Your task to perform on an android device: Go to internet settings Image 0: 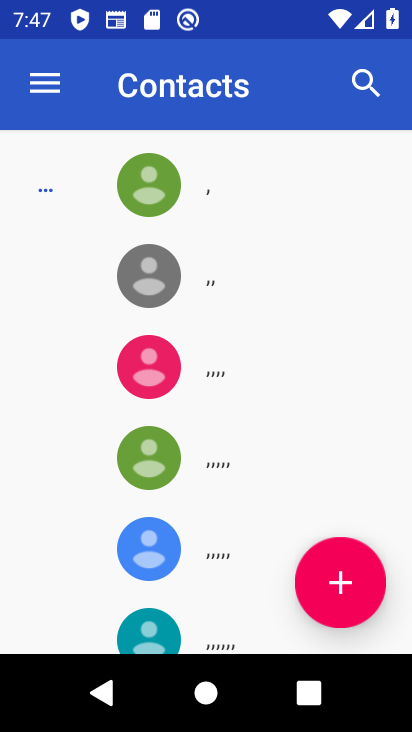
Step 0: press home button
Your task to perform on an android device: Go to internet settings Image 1: 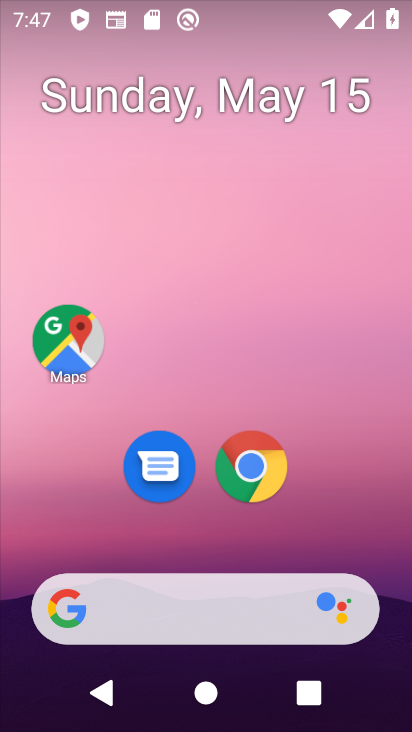
Step 1: drag from (192, 551) to (189, 1)
Your task to perform on an android device: Go to internet settings Image 2: 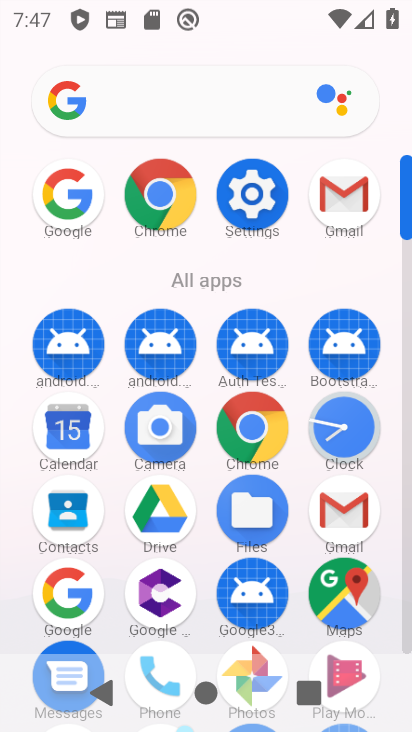
Step 2: click (260, 203)
Your task to perform on an android device: Go to internet settings Image 3: 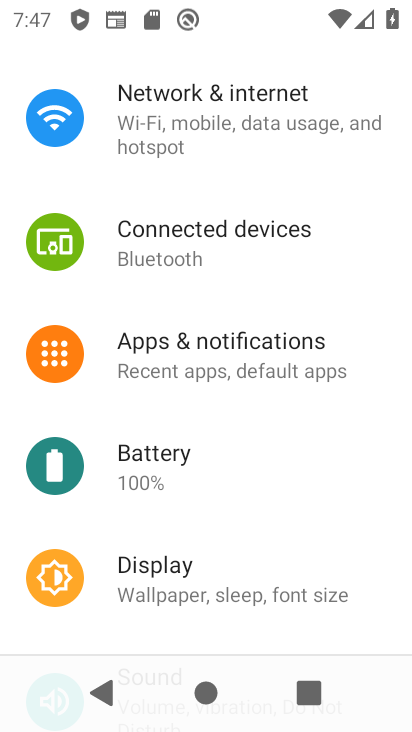
Step 3: drag from (284, 194) to (179, 711)
Your task to perform on an android device: Go to internet settings Image 4: 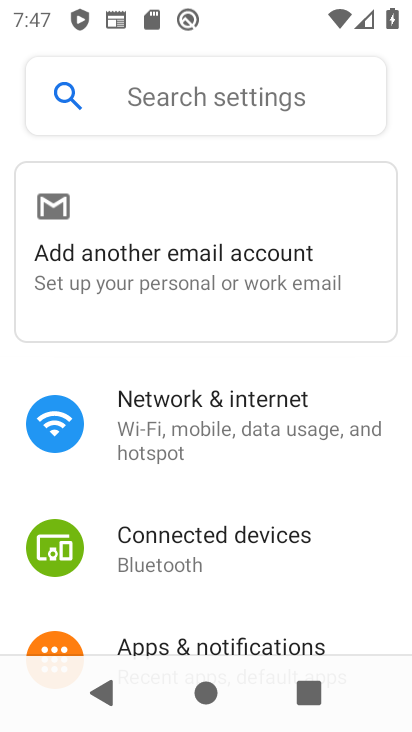
Step 4: click (204, 442)
Your task to perform on an android device: Go to internet settings Image 5: 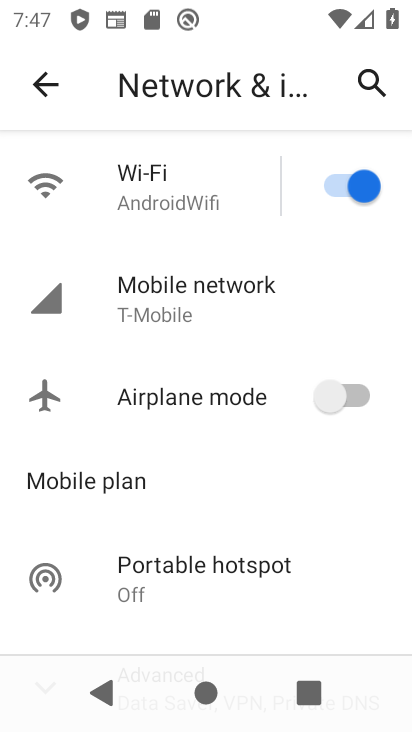
Step 5: click (195, 258)
Your task to perform on an android device: Go to internet settings Image 6: 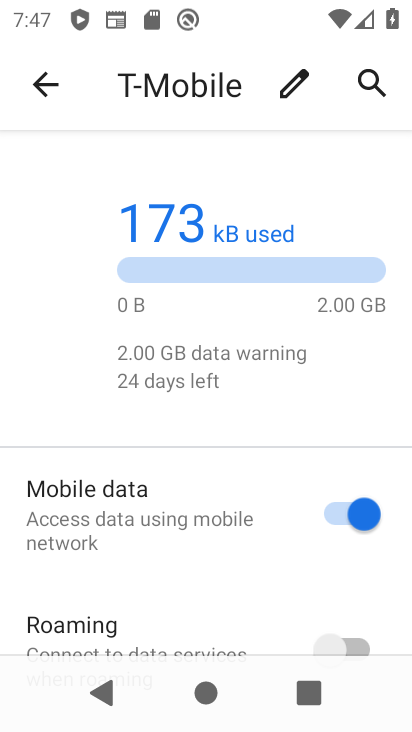
Step 6: task complete